Your task to perform on an android device: turn on translation in the chrome app Image 0: 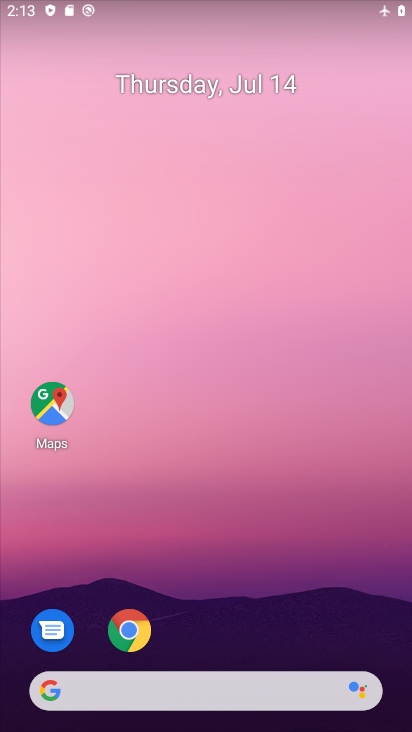
Step 0: click (125, 622)
Your task to perform on an android device: turn on translation in the chrome app Image 1: 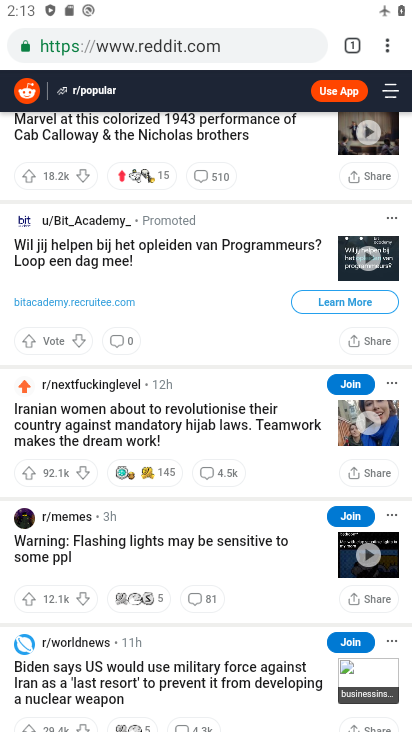
Step 1: click (384, 41)
Your task to perform on an android device: turn on translation in the chrome app Image 2: 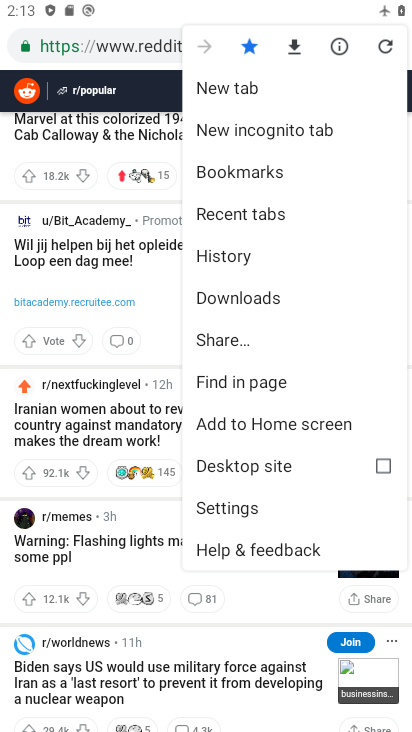
Step 2: click (267, 505)
Your task to perform on an android device: turn on translation in the chrome app Image 3: 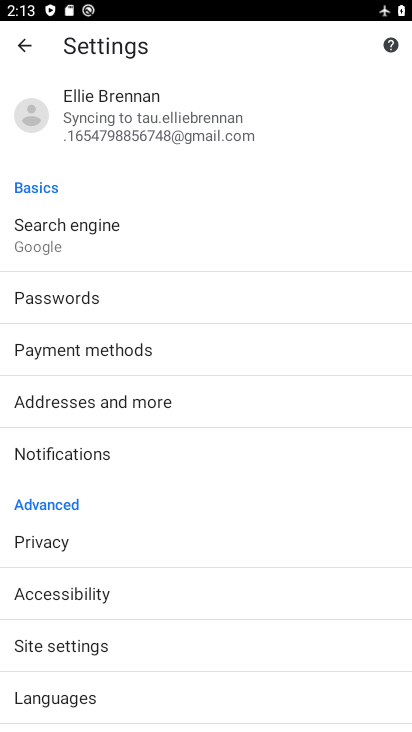
Step 3: click (118, 696)
Your task to perform on an android device: turn on translation in the chrome app Image 4: 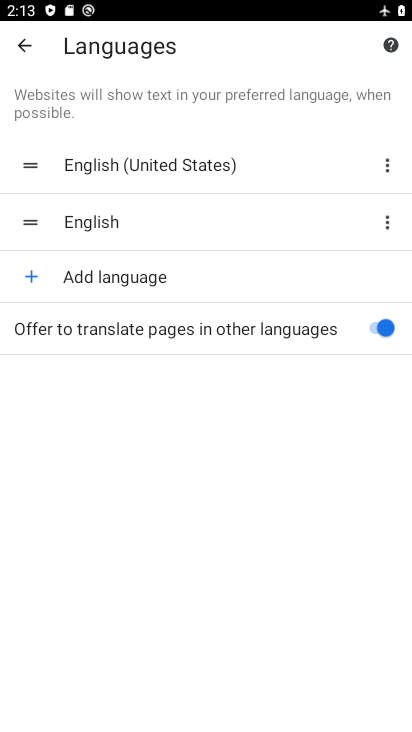
Step 4: task complete